Your task to perform on an android device: uninstall "Google Play services" Image 0: 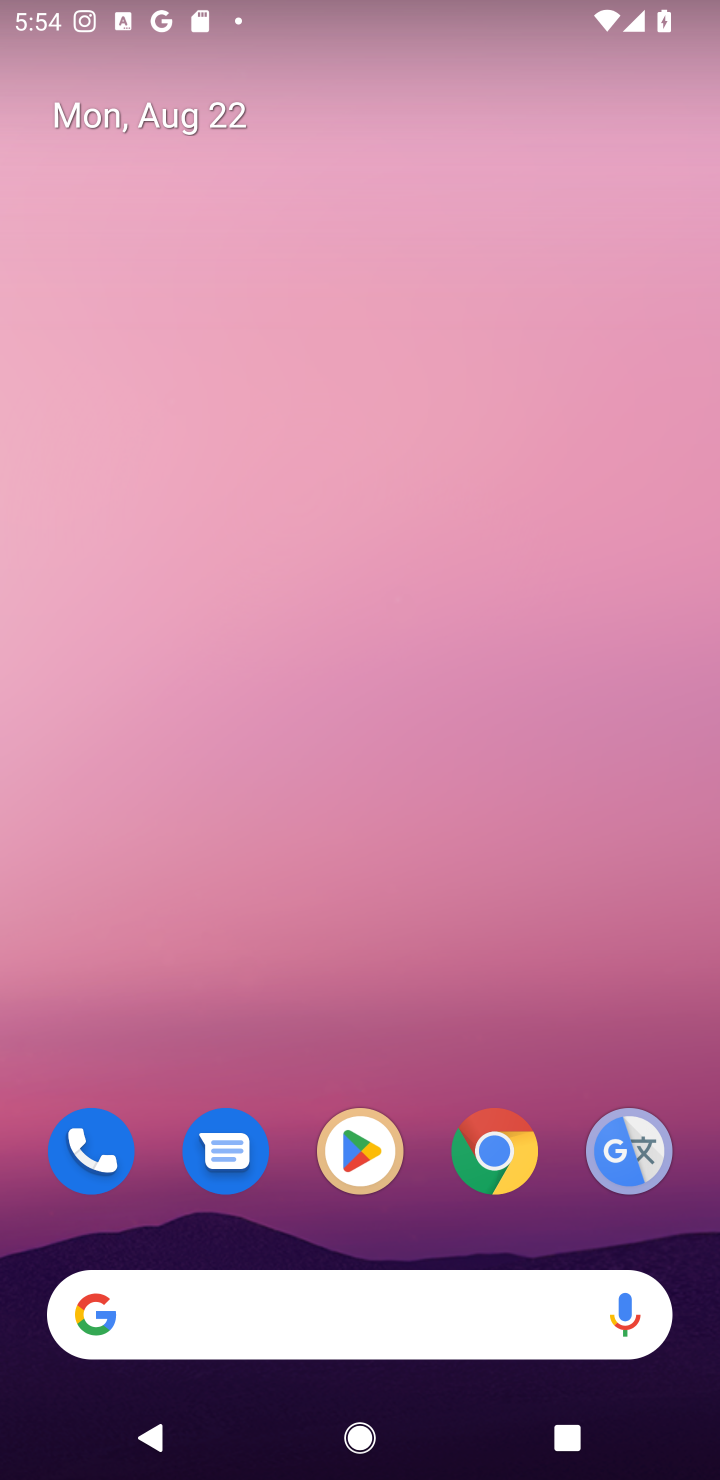
Step 0: press home button
Your task to perform on an android device: uninstall "Google Play services" Image 1: 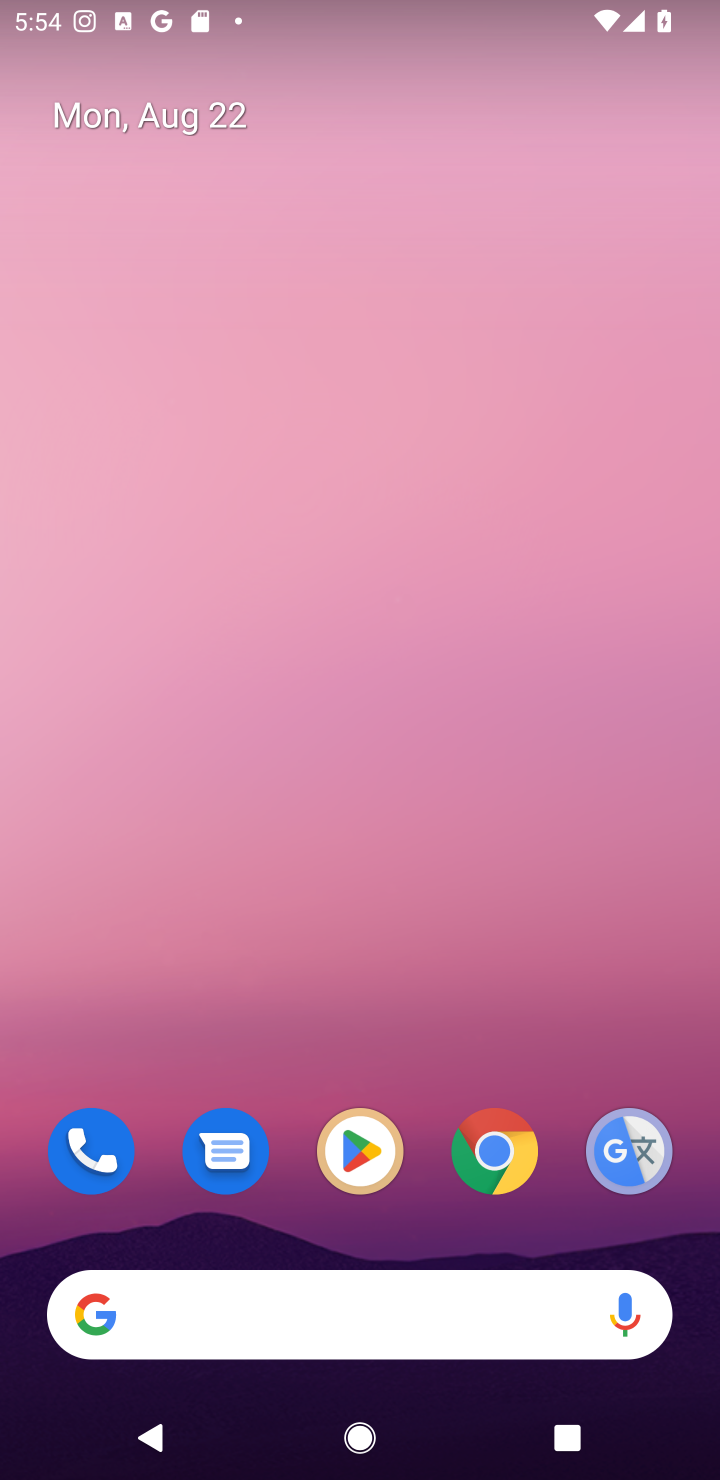
Step 1: click (350, 1158)
Your task to perform on an android device: uninstall "Google Play services" Image 2: 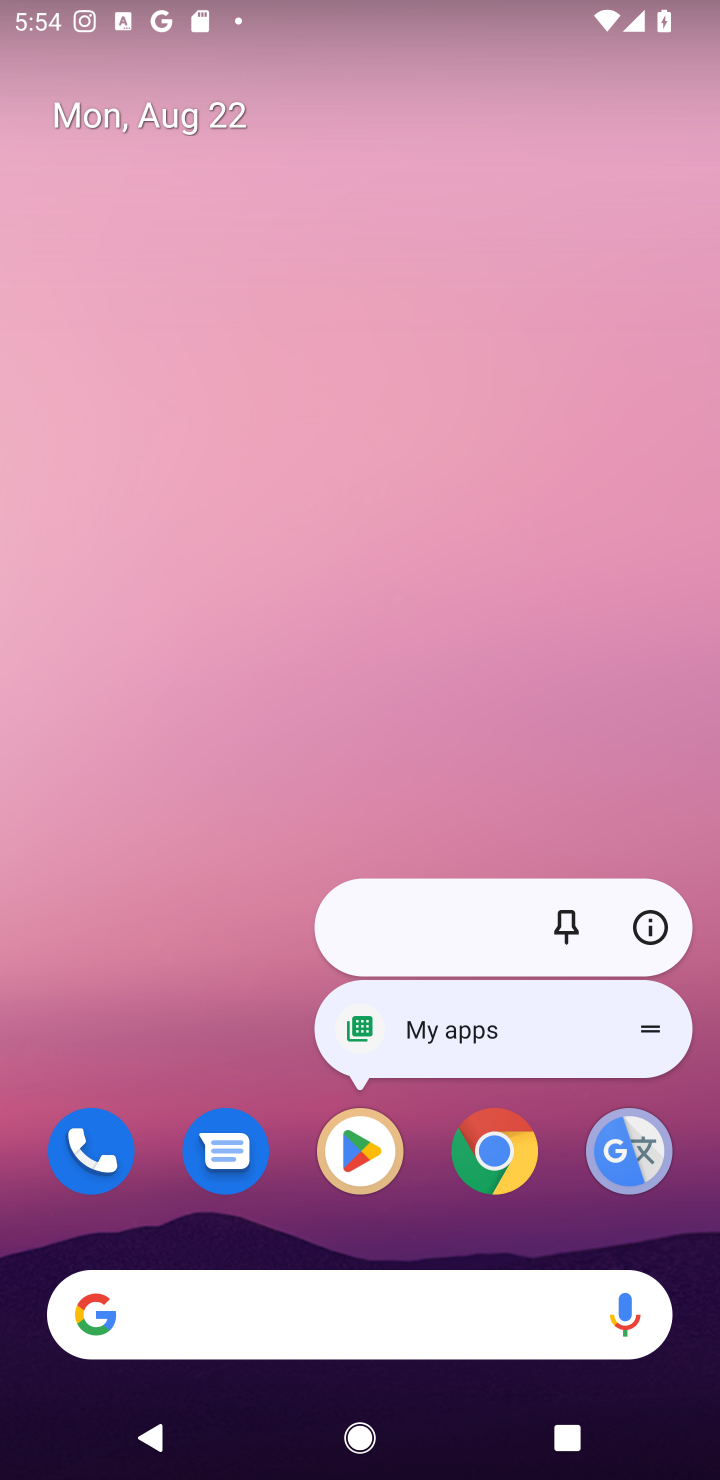
Step 2: click (350, 1154)
Your task to perform on an android device: uninstall "Google Play services" Image 3: 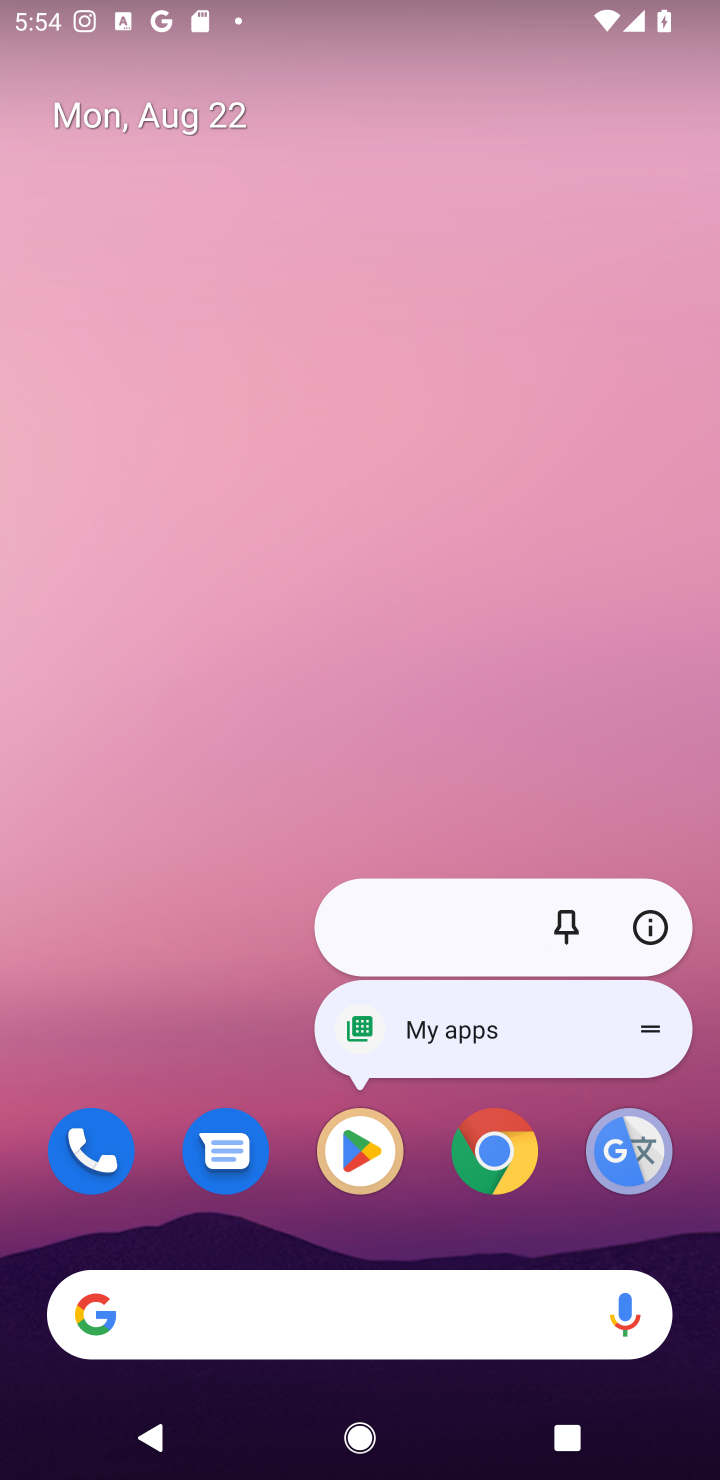
Step 3: click (350, 1168)
Your task to perform on an android device: uninstall "Google Play services" Image 4: 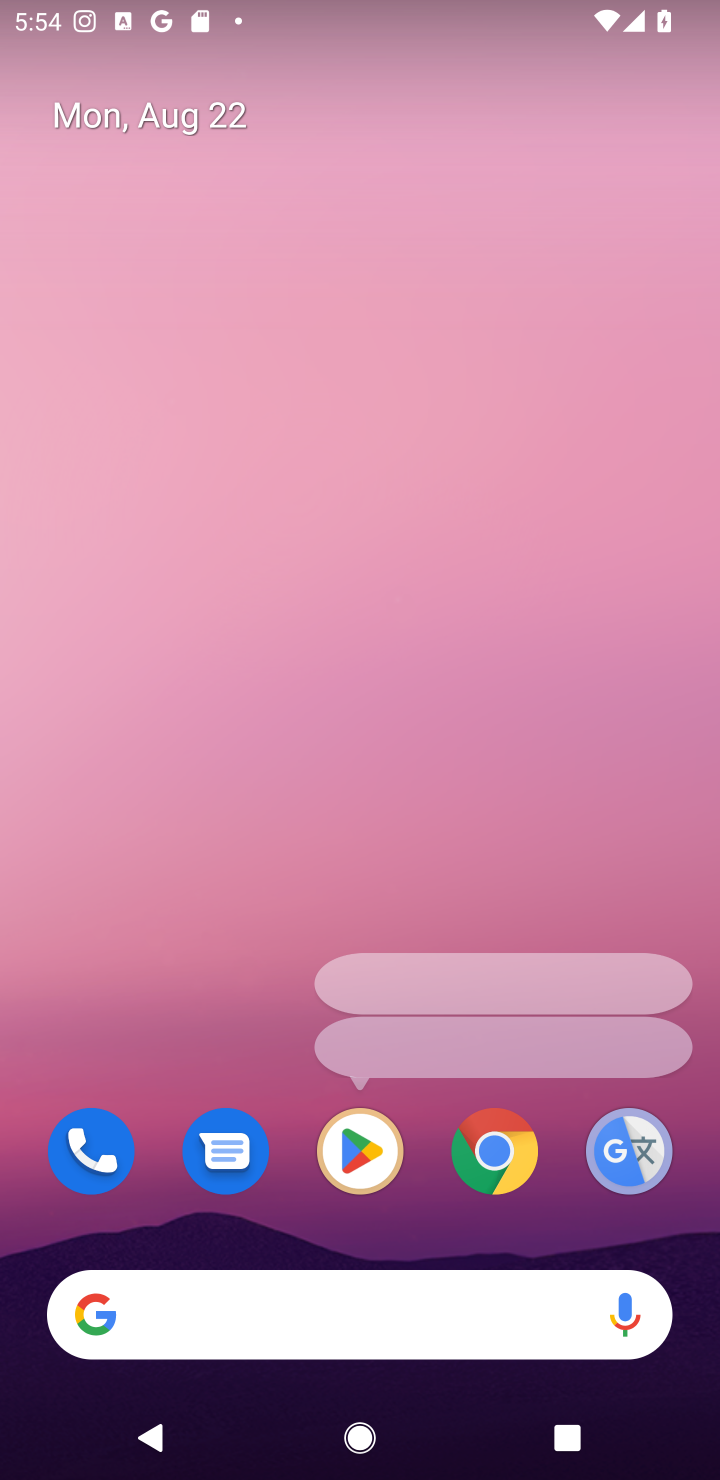
Step 4: click (350, 1168)
Your task to perform on an android device: uninstall "Google Play services" Image 5: 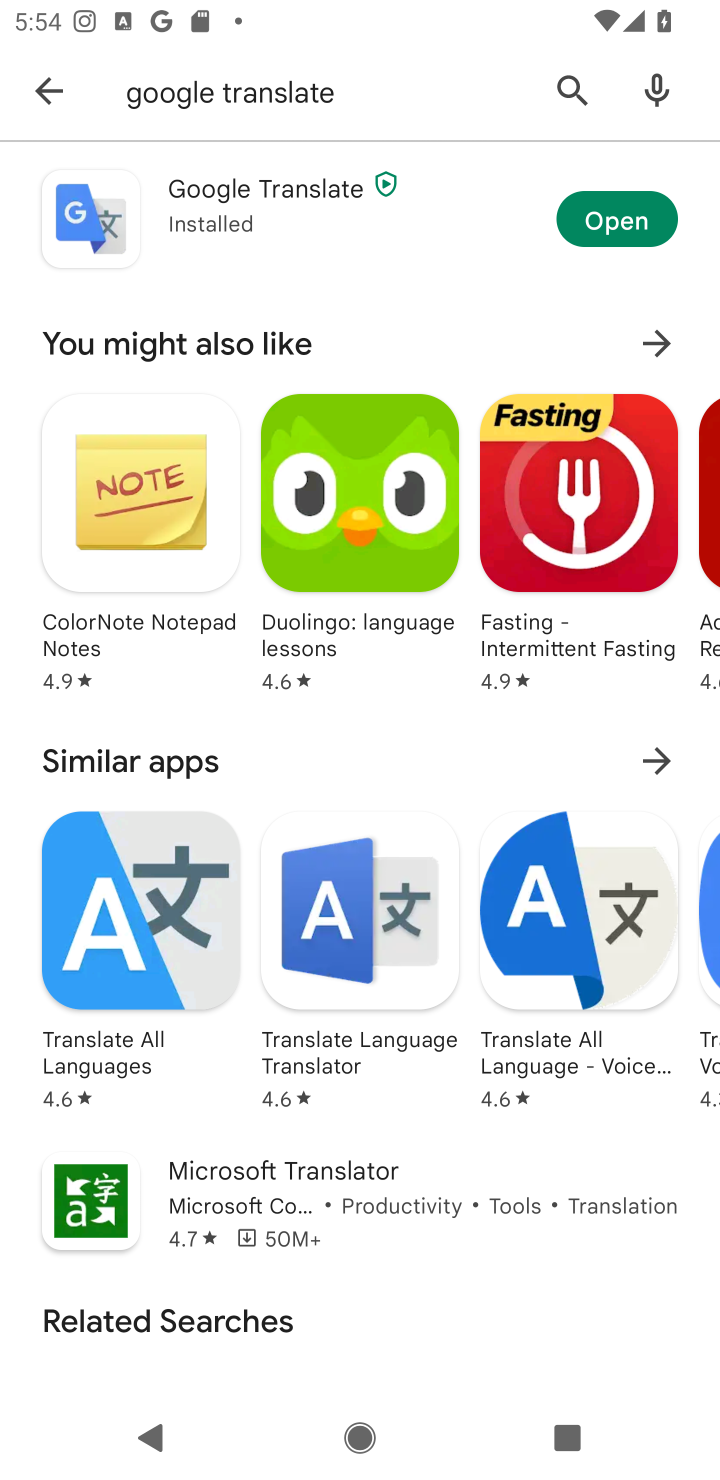
Step 5: click (566, 83)
Your task to perform on an android device: uninstall "Google Play services" Image 6: 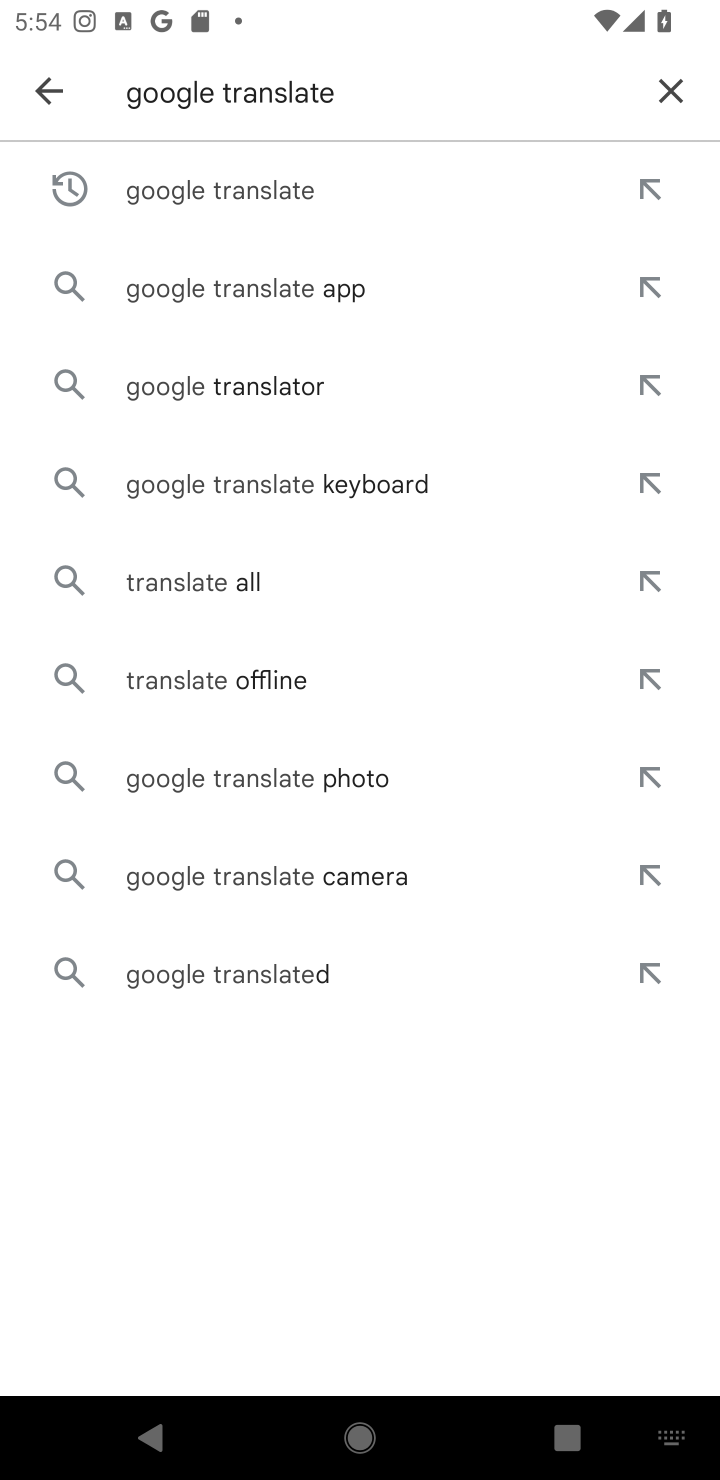
Step 6: click (666, 87)
Your task to perform on an android device: uninstall "Google Play services" Image 7: 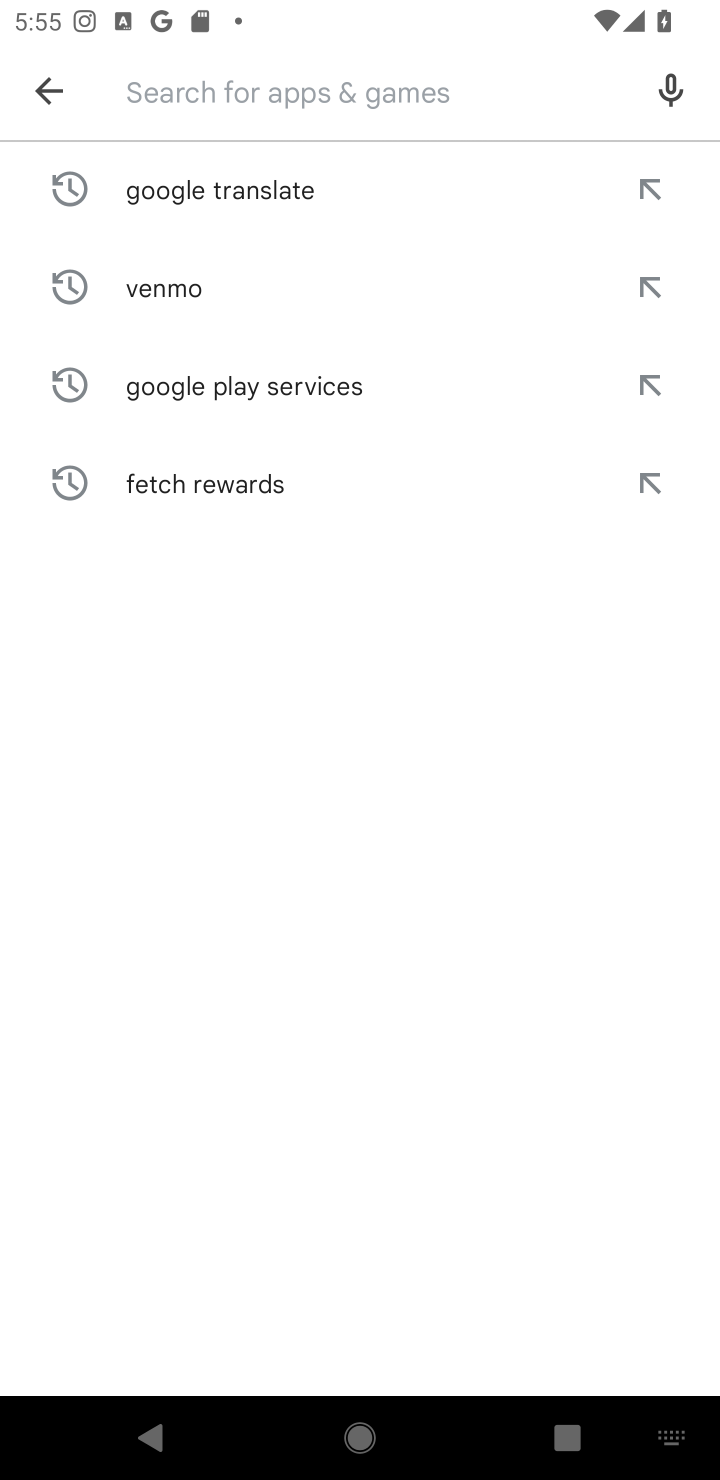
Step 7: type "Google Play services"
Your task to perform on an android device: uninstall "Google Play services" Image 8: 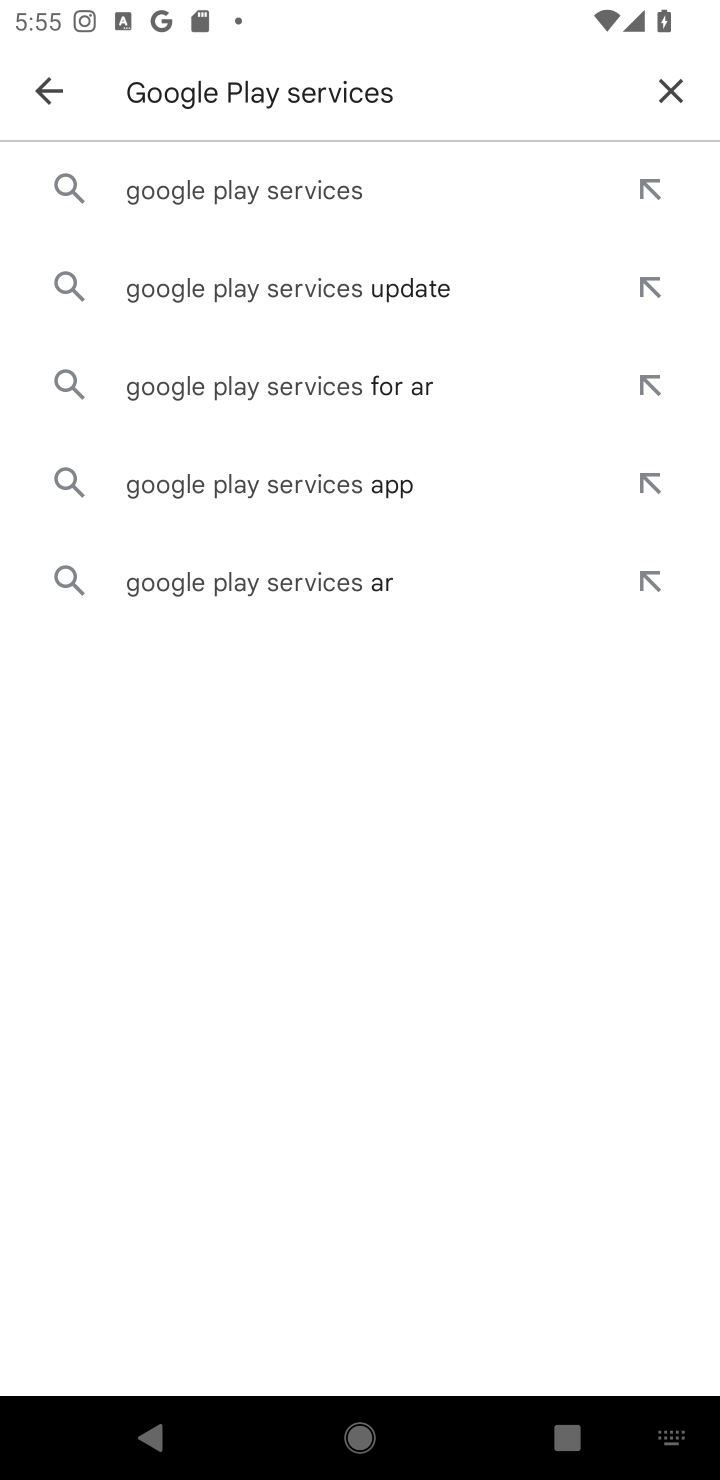
Step 8: click (158, 195)
Your task to perform on an android device: uninstall "Google Play services" Image 9: 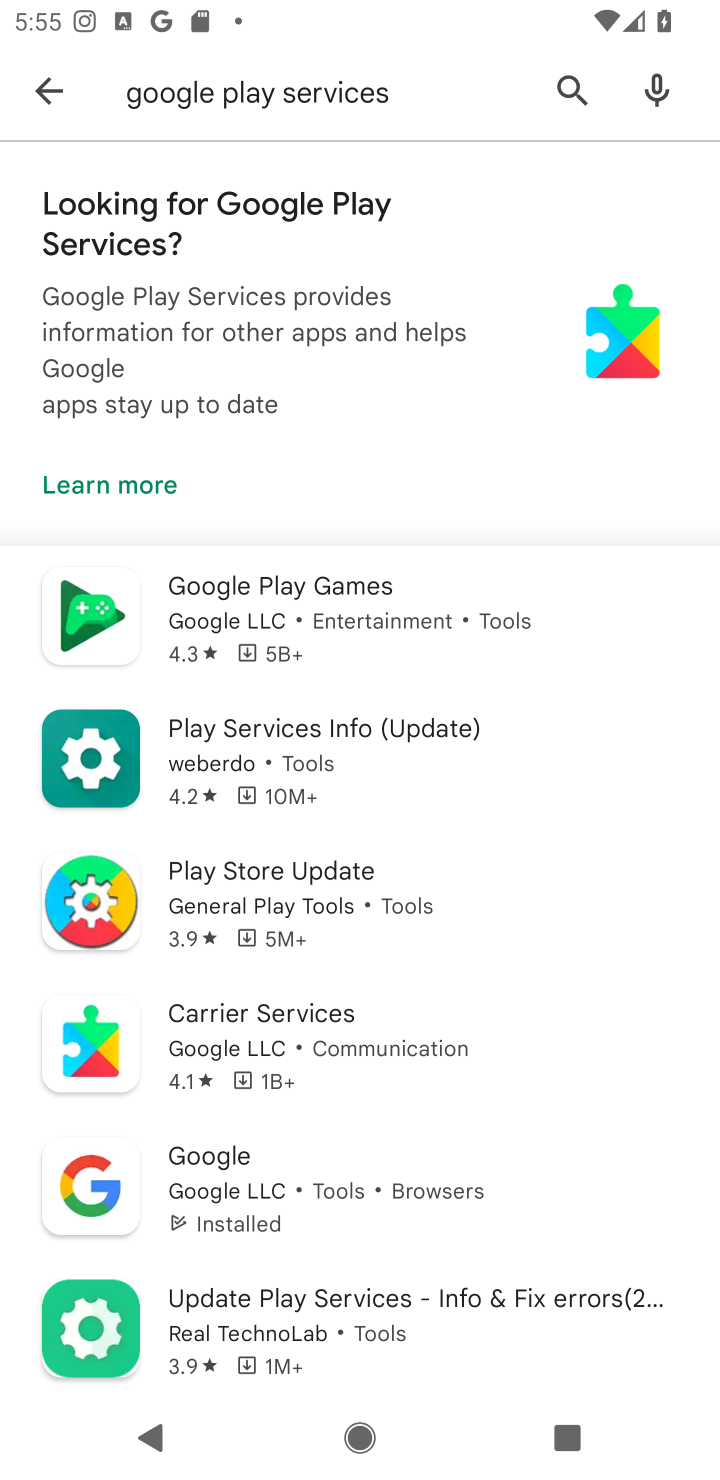
Step 9: task complete